Your task to perform on an android device: Open the stopwatch Image 0: 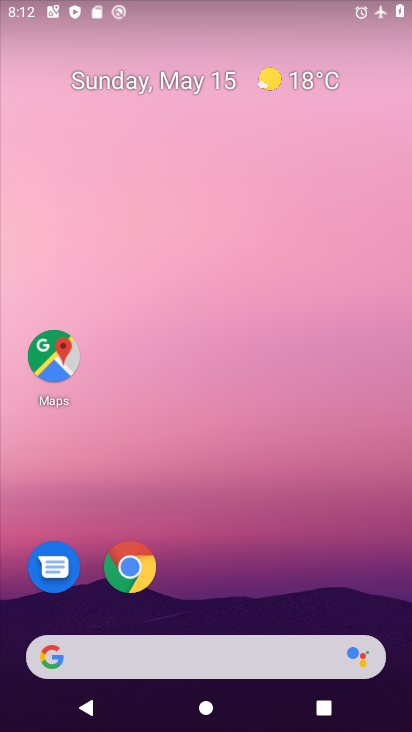
Step 0: drag from (276, 703) to (367, 230)
Your task to perform on an android device: Open the stopwatch Image 1: 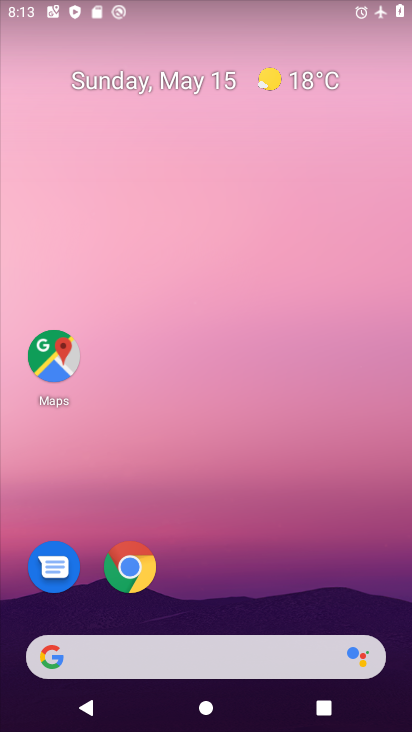
Step 1: drag from (271, 726) to (273, 189)
Your task to perform on an android device: Open the stopwatch Image 2: 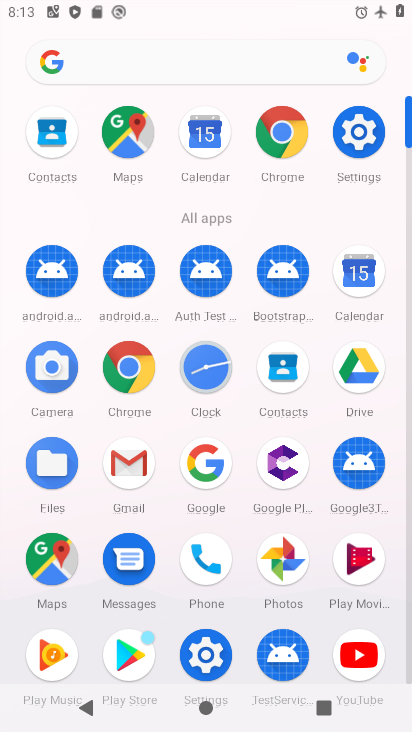
Step 2: click (207, 379)
Your task to perform on an android device: Open the stopwatch Image 3: 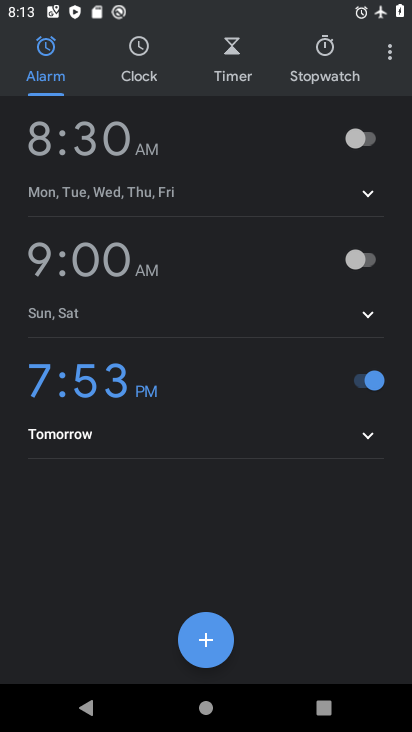
Step 3: click (327, 68)
Your task to perform on an android device: Open the stopwatch Image 4: 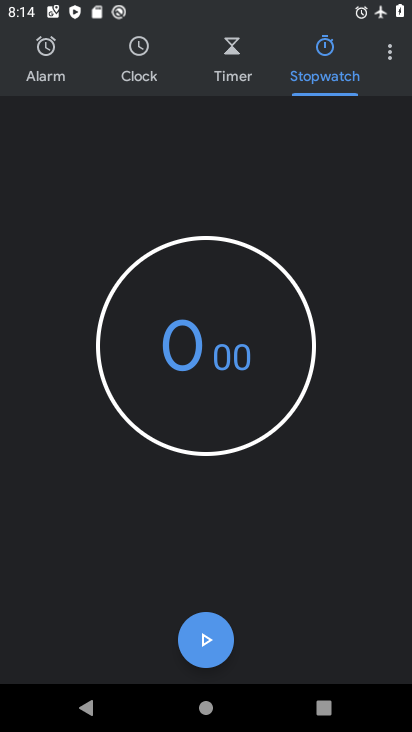
Step 4: task complete